Your task to perform on an android device: Search for pizza restaurants on Maps Image 0: 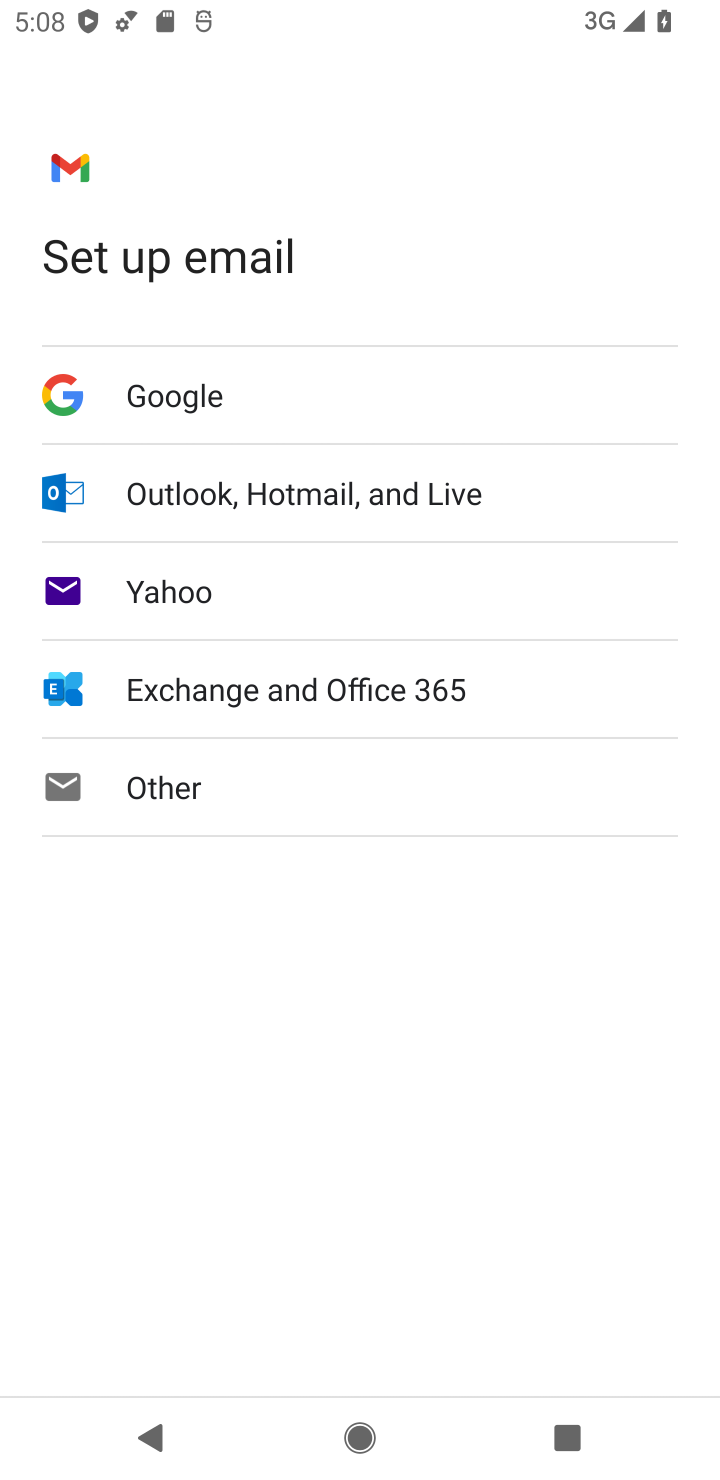
Step 0: press home button
Your task to perform on an android device: Search for pizza restaurants on Maps Image 1: 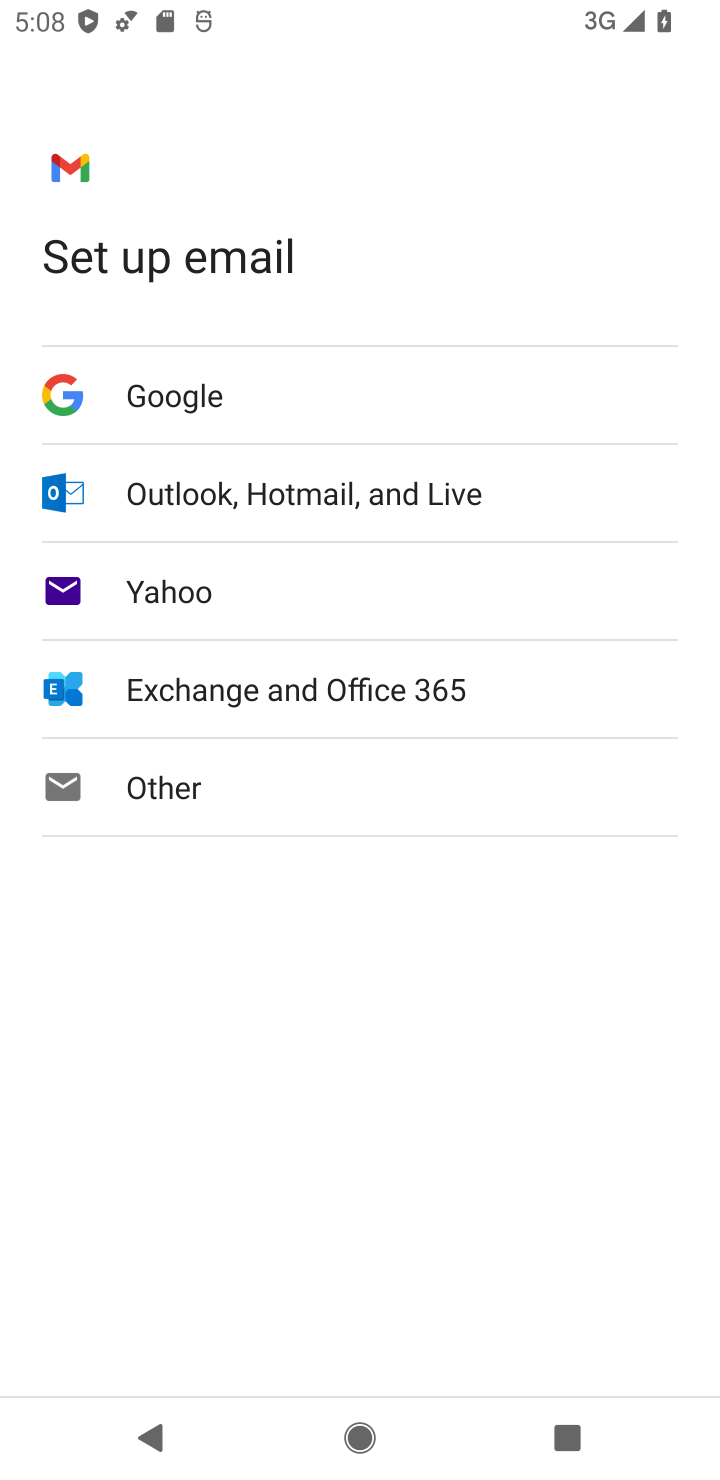
Step 1: press home button
Your task to perform on an android device: Search for pizza restaurants on Maps Image 2: 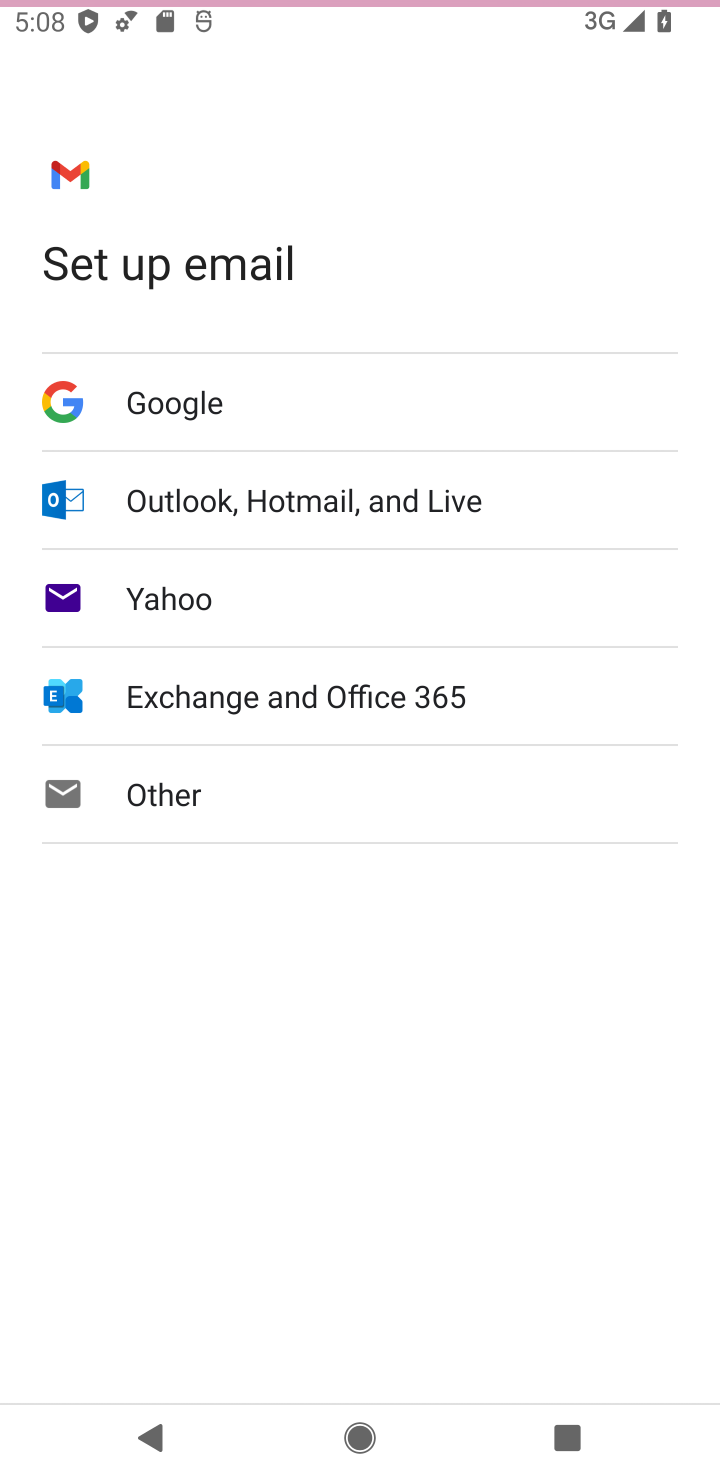
Step 2: press home button
Your task to perform on an android device: Search for pizza restaurants on Maps Image 3: 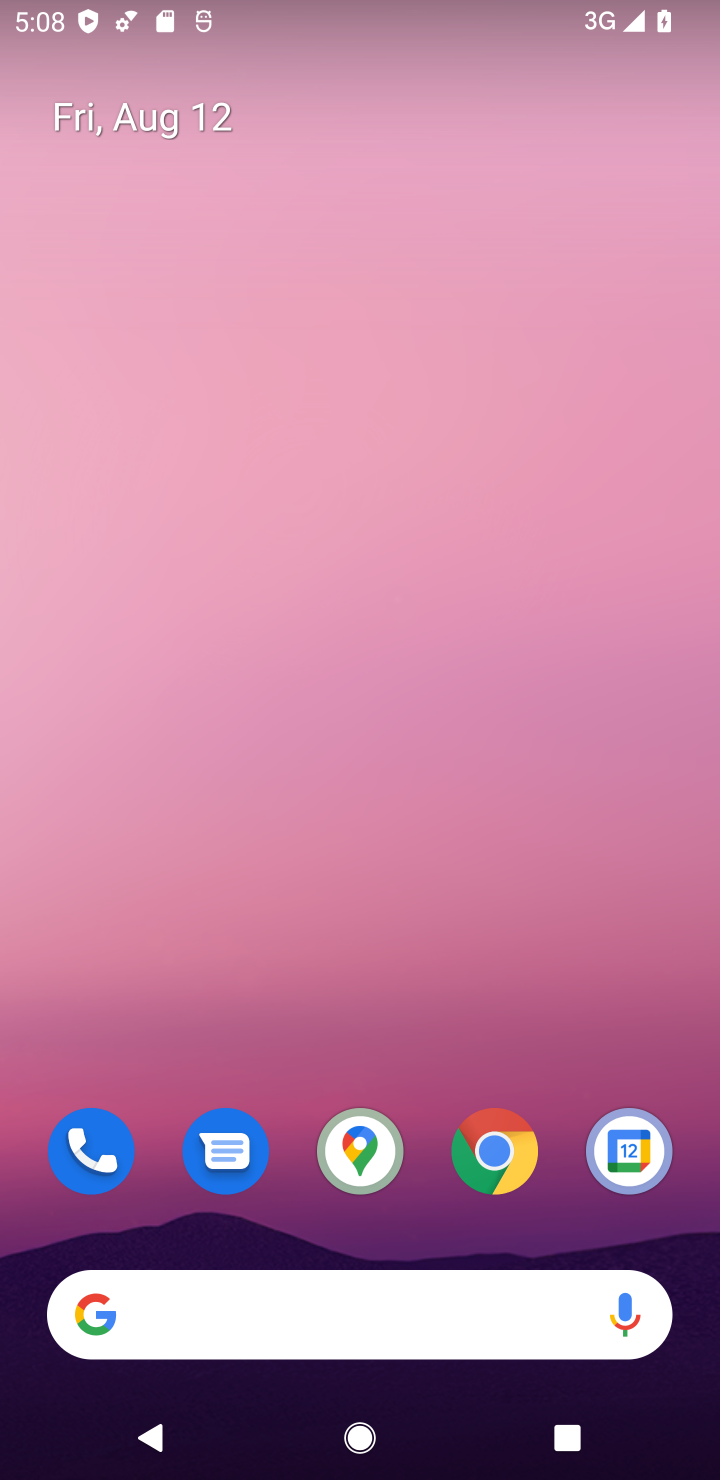
Step 3: drag from (514, 893) to (511, 186)
Your task to perform on an android device: Search for pizza restaurants on Maps Image 4: 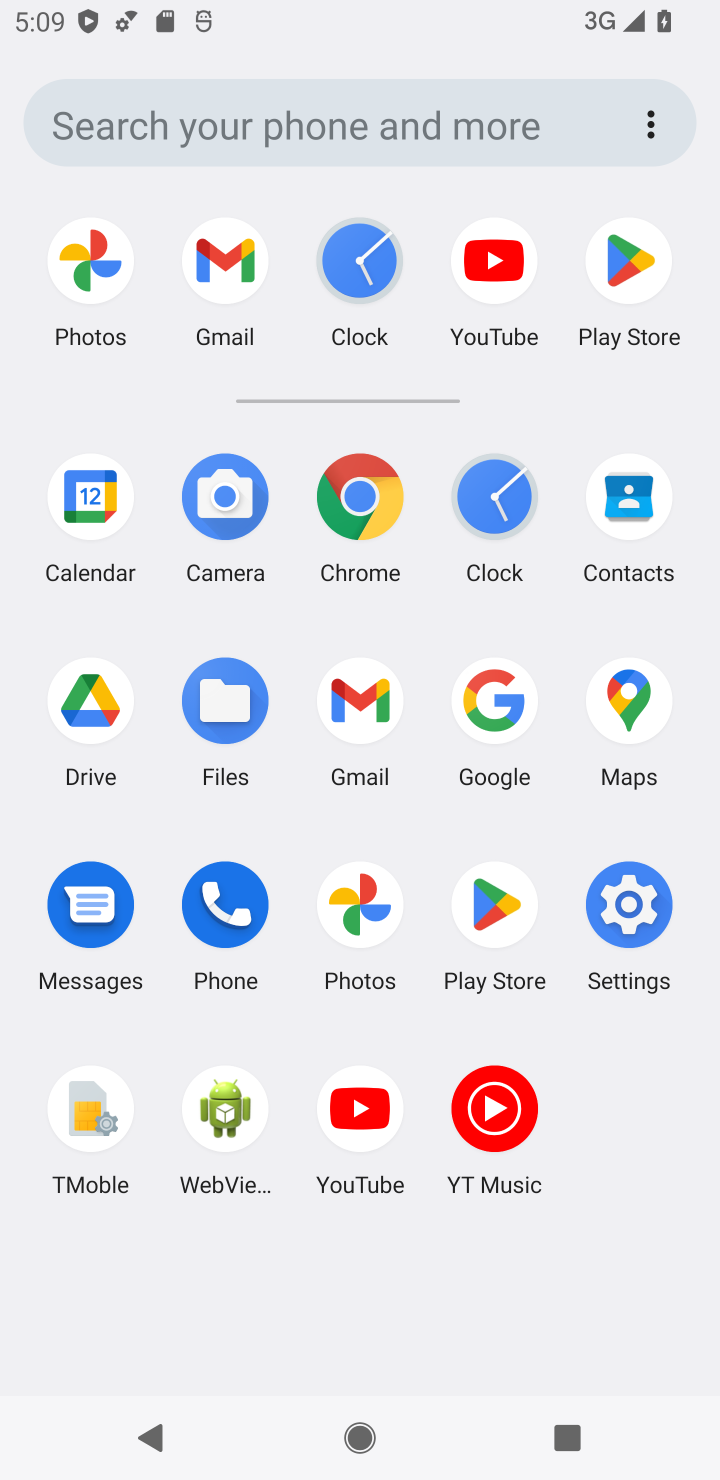
Step 4: click (618, 688)
Your task to perform on an android device: Search for pizza restaurants on Maps Image 5: 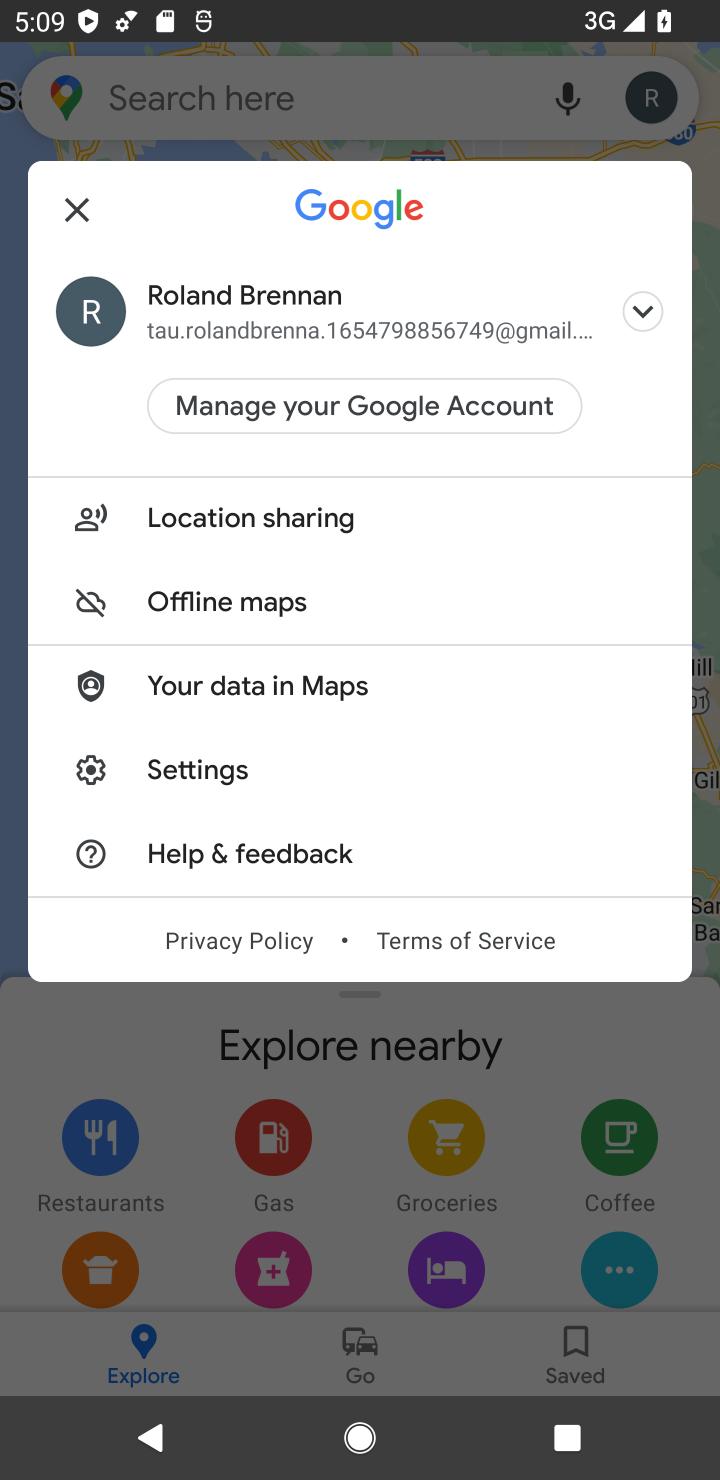
Step 5: click (68, 212)
Your task to perform on an android device: Search for pizza restaurants on Maps Image 6: 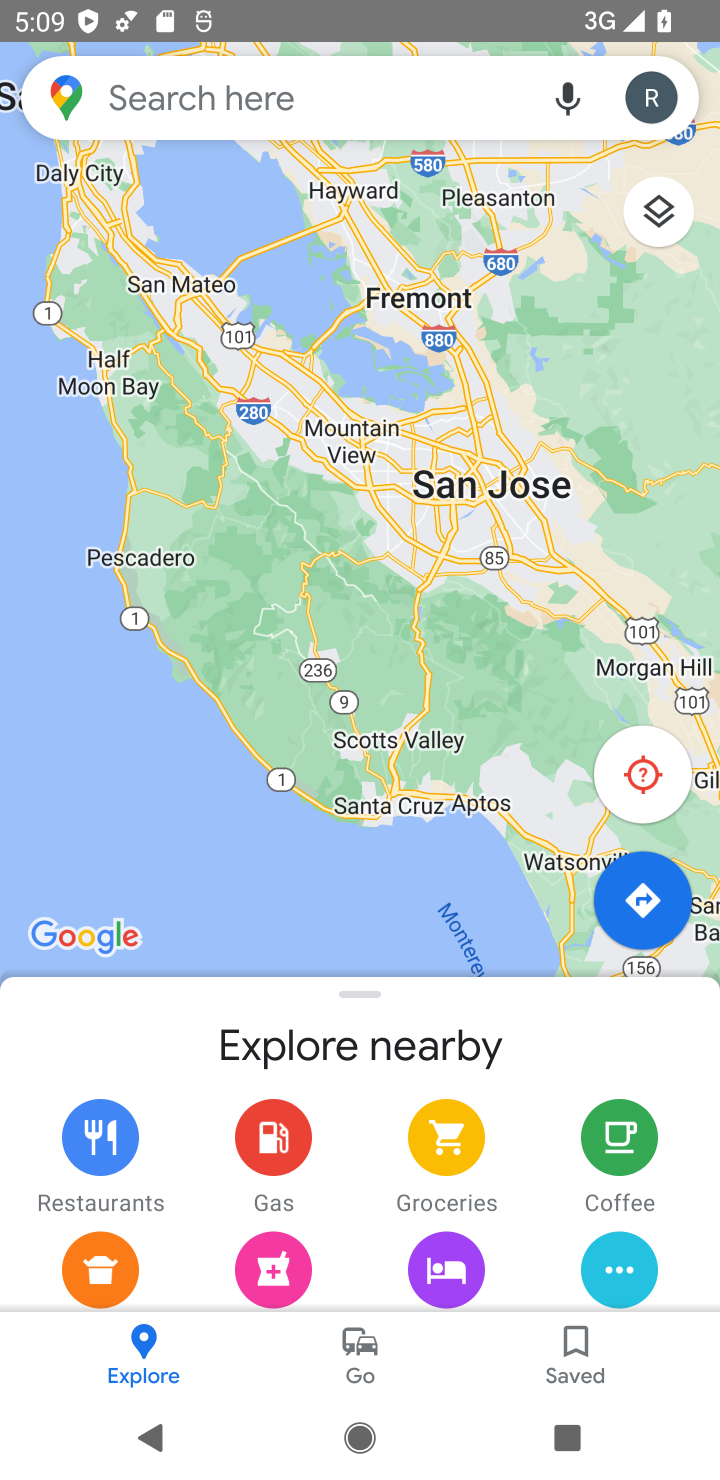
Step 6: click (267, 117)
Your task to perform on an android device: Search for pizza restaurants on Maps Image 7: 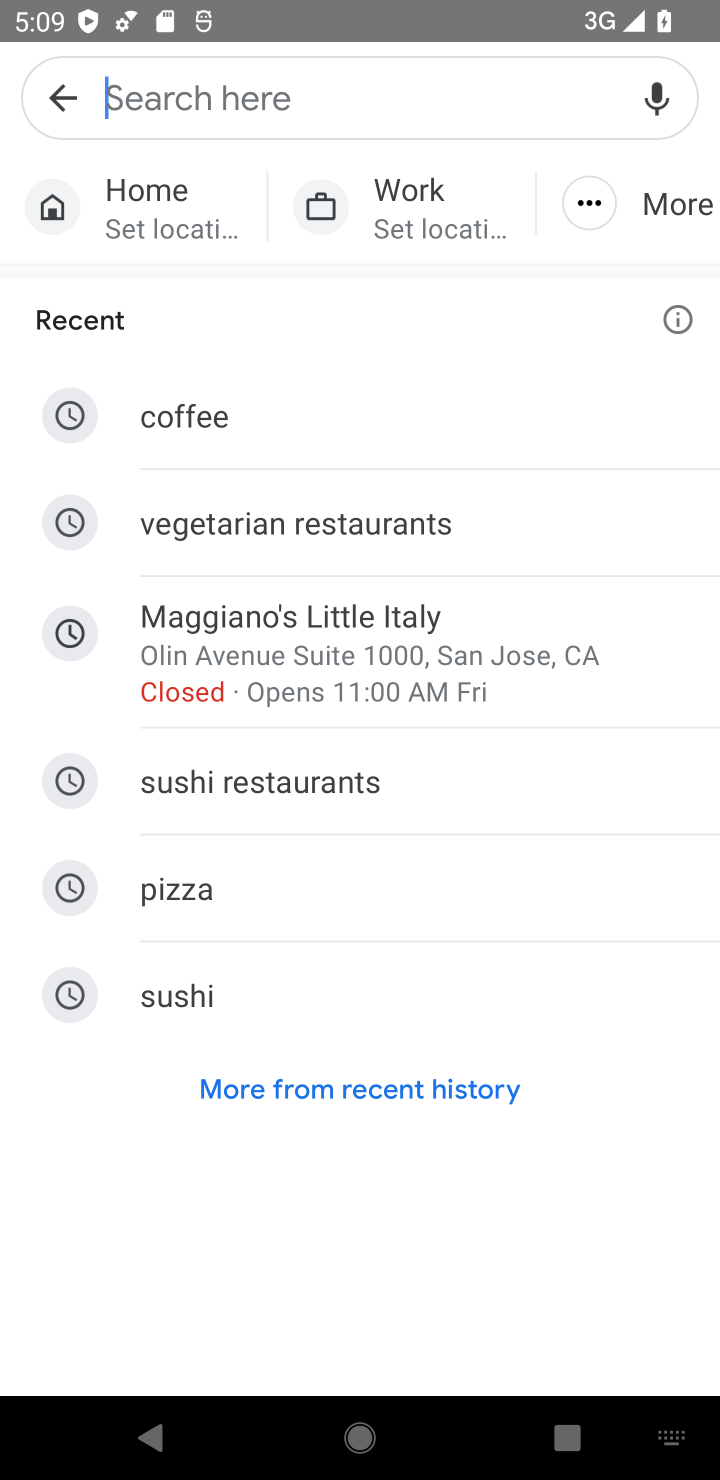
Step 7: type "pizza restaurants"
Your task to perform on an android device: Search for pizza restaurants on Maps Image 8: 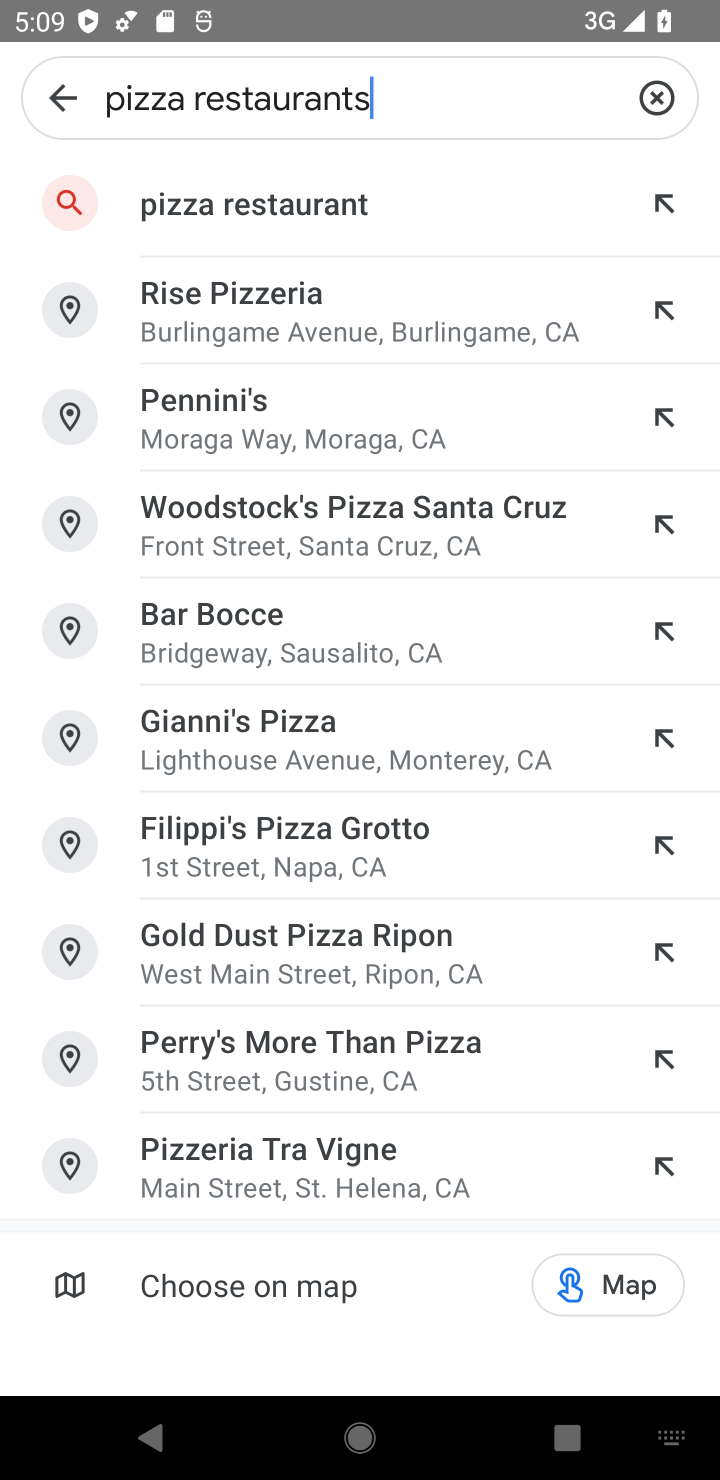
Step 8: press enter
Your task to perform on an android device: Search for pizza restaurants on Maps Image 9: 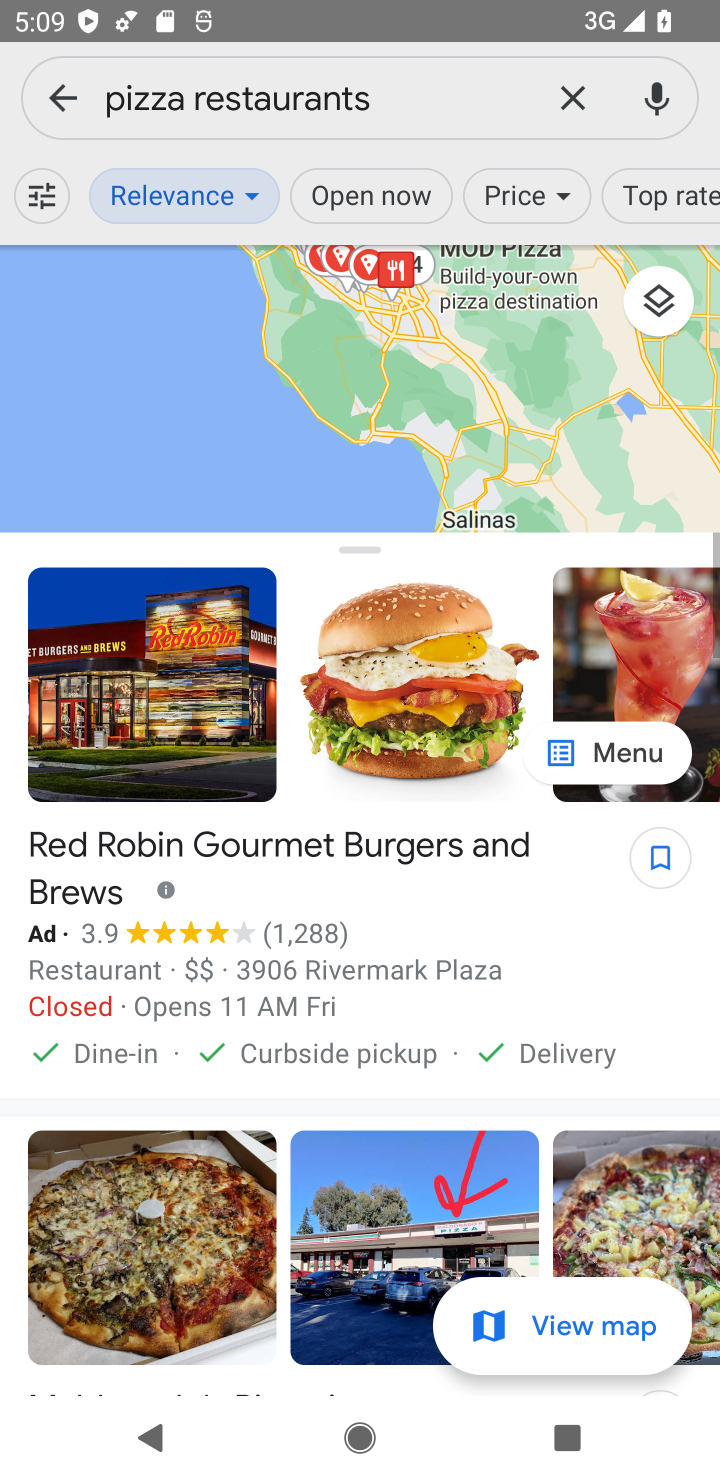
Step 9: task complete